Your task to perform on an android device: What's the weather going to be tomorrow? Image 0: 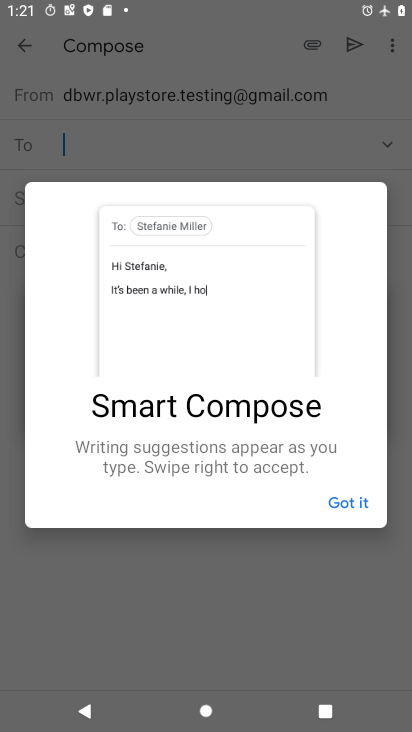
Step 0: press home button
Your task to perform on an android device: What's the weather going to be tomorrow? Image 1: 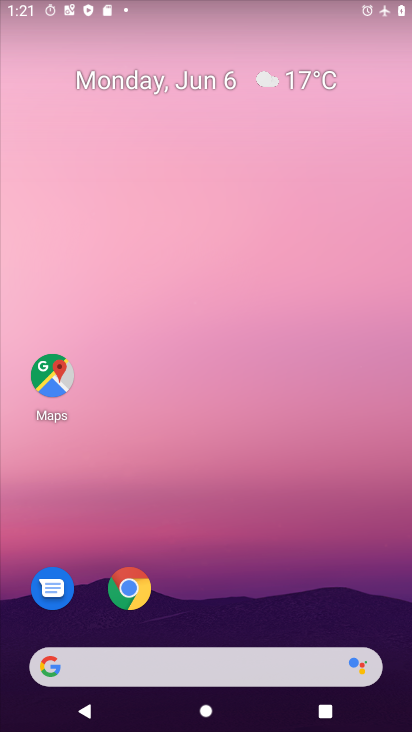
Step 1: click (303, 83)
Your task to perform on an android device: What's the weather going to be tomorrow? Image 2: 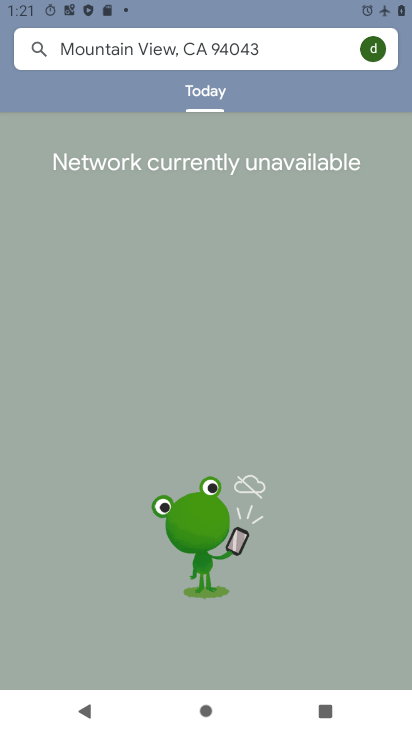
Step 2: click (300, 88)
Your task to perform on an android device: What's the weather going to be tomorrow? Image 3: 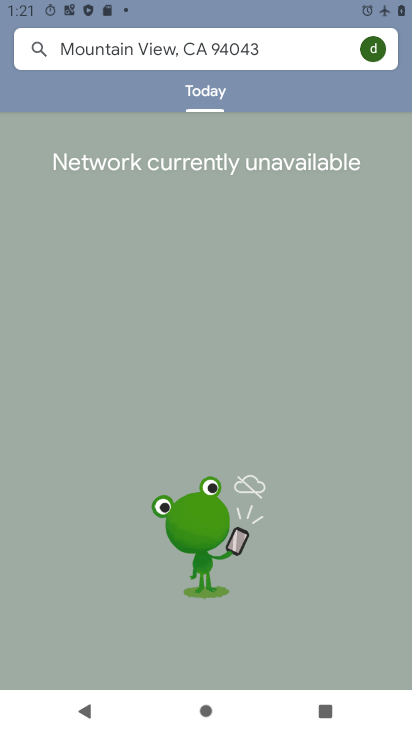
Step 3: click (319, 91)
Your task to perform on an android device: What's the weather going to be tomorrow? Image 4: 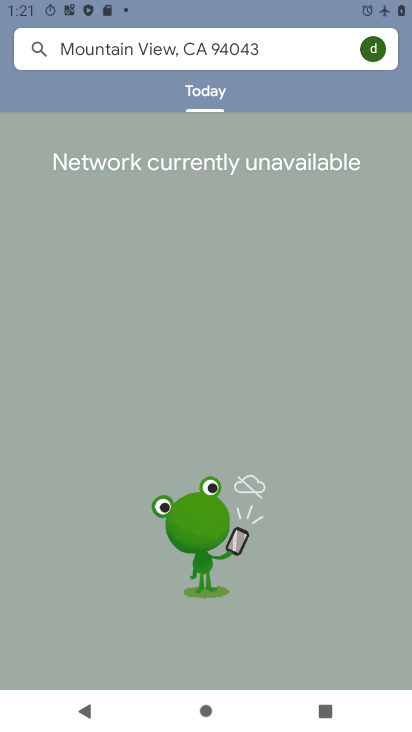
Step 4: click (47, 135)
Your task to perform on an android device: What's the weather going to be tomorrow? Image 5: 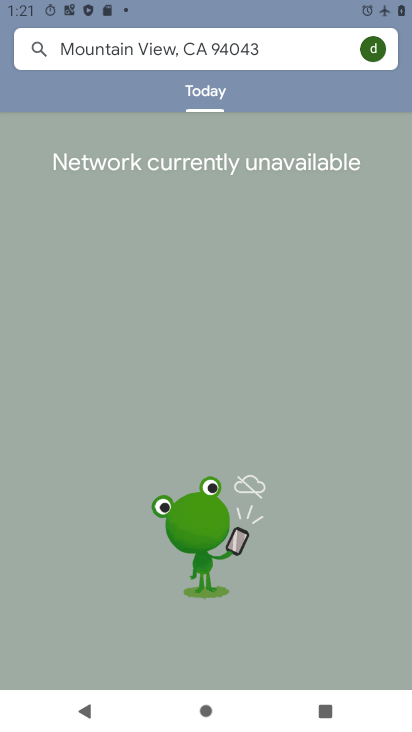
Step 5: task complete